Your task to perform on an android device: show emergency info Image 0: 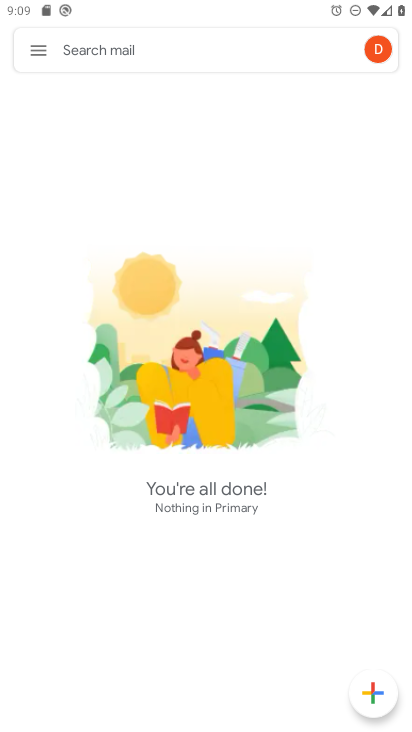
Step 0: press home button
Your task to perform on an android device: show emergency info Image 1: 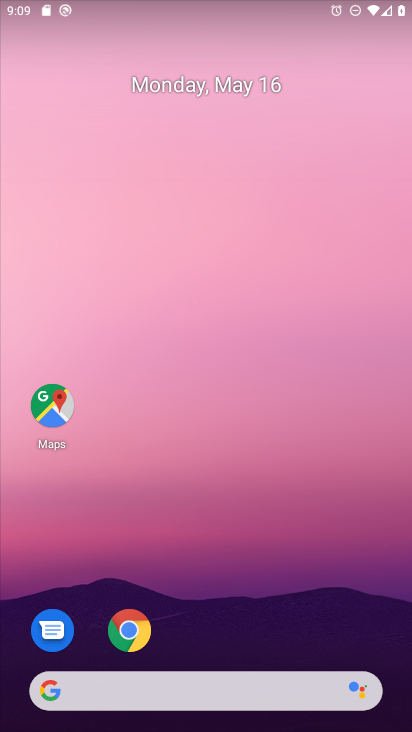
Step 1: drag from (259, 618) to (297, 133)
Your task to perform on an android device: show emergency info Image 2: 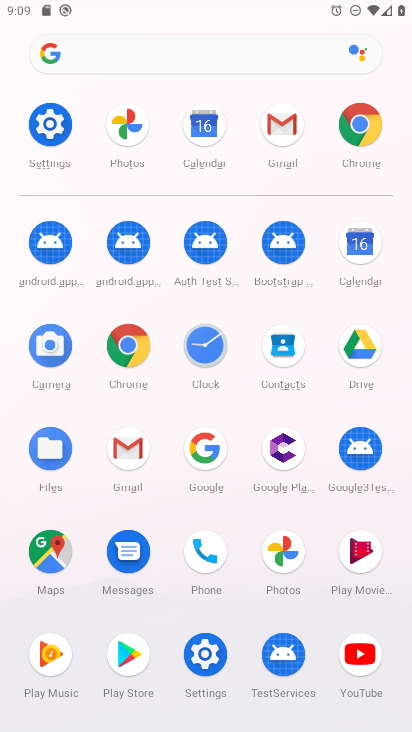
Step 2: click (61, 121)
Your task to perform on an android device: show emergency info Image 3: 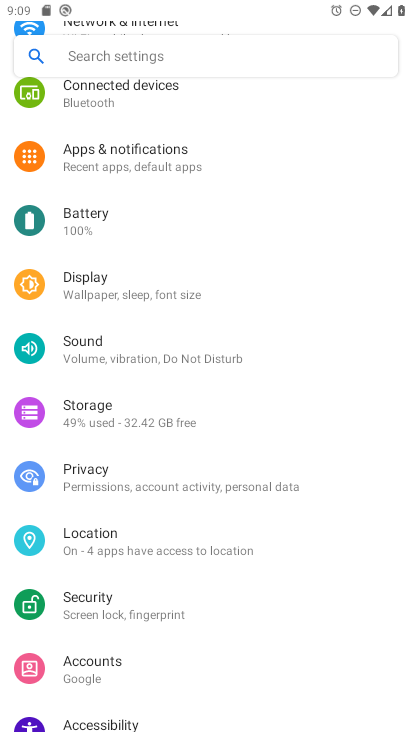
Step 3: drag from (273, 124) to (226, 603)
Your task to perform on an android device: show emergency info Image 4: 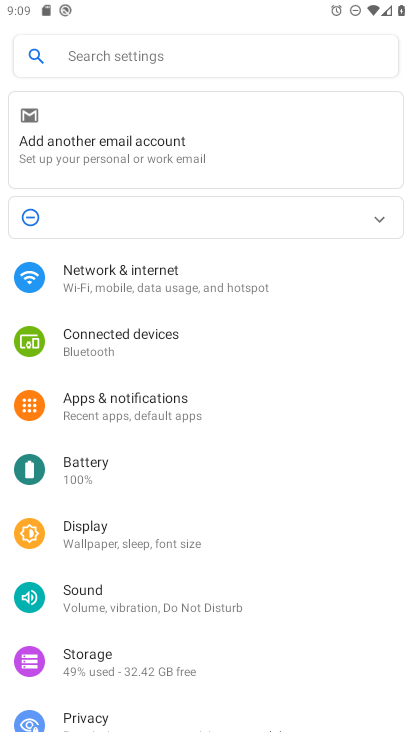
Step 4: drag from (285, 562) to (320, 57)
Your task to perform on an android device: show emergency info Image 5: 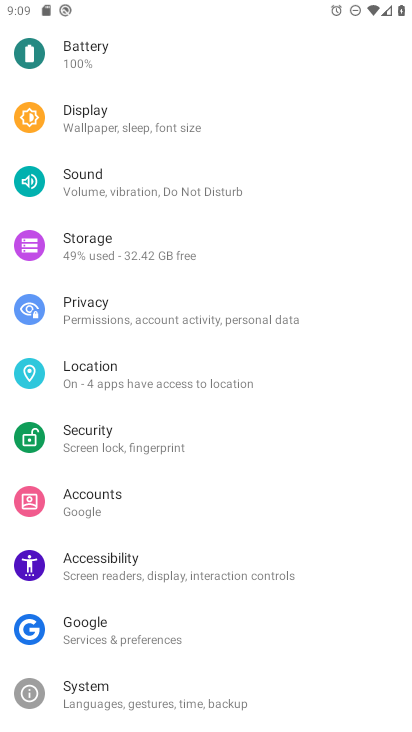
Step 5: drag from (220, 646) to (210, 273)
Your task to perform on an android device: show emergency info Image 6: 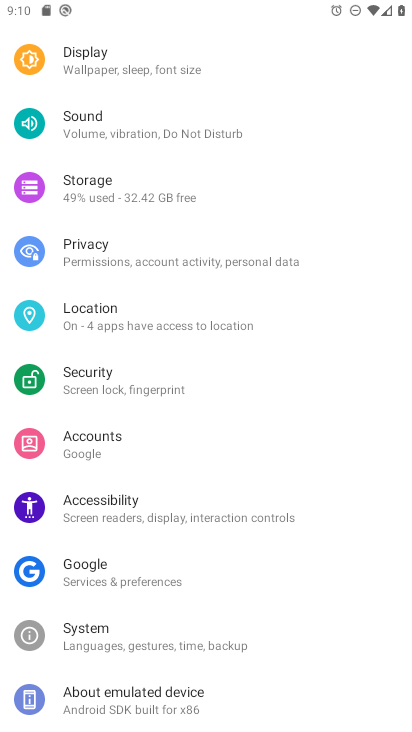
Step 6: click (200, 528)
Your task to perform on an android device: show emergency info Image 7: 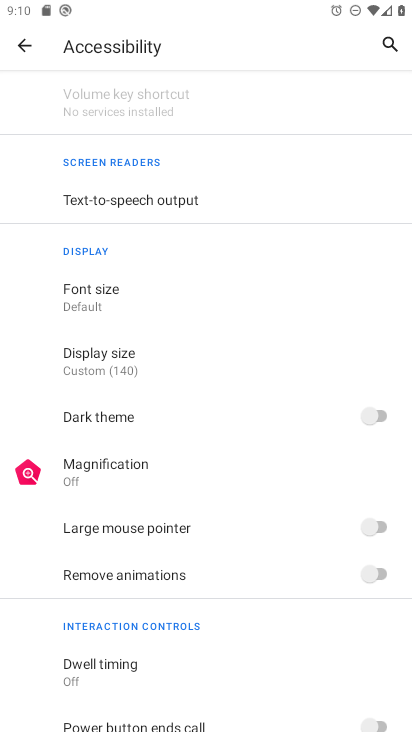
Step 7: drag from (135, 689) to (164, 225)
Your task to perform on an android device: show emergency info Image 8: 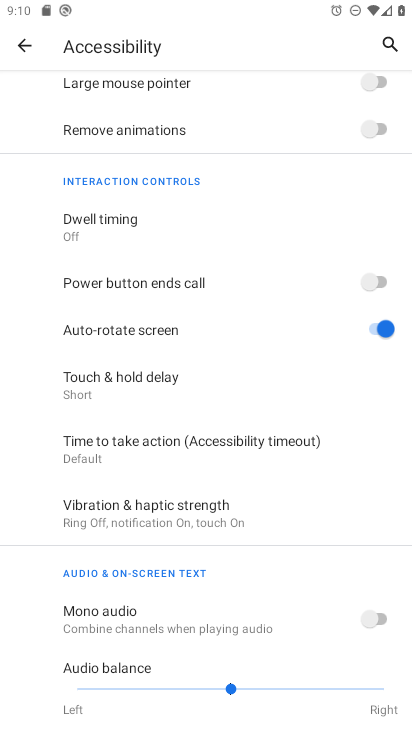
Step 8: drag from (170, 576) to (166, 232)
Your task to perform on an android device: show emergency info Image 9: 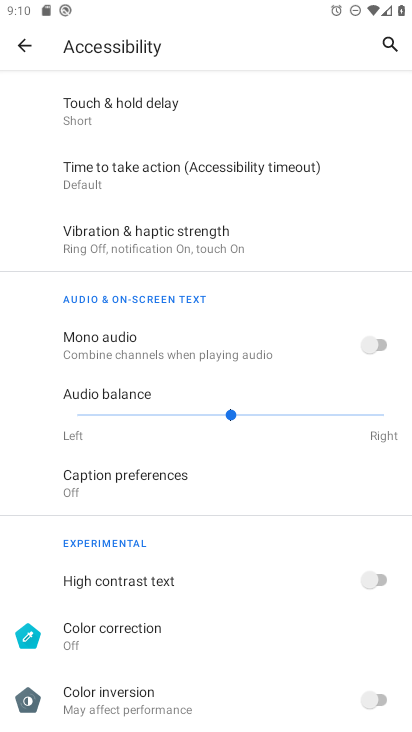
Step 9: drag from (168, 626) to (129, 303)
Your task to perform on an android device: show emergency info Image 10: 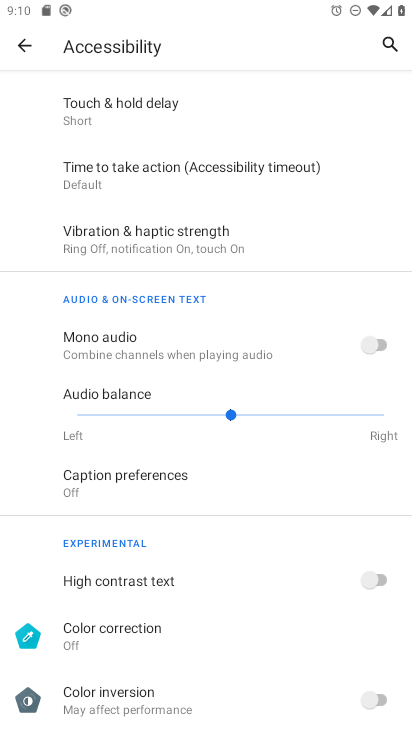
Step 10: press back button
Your task to perform on an android device: show emergency info Image 11: 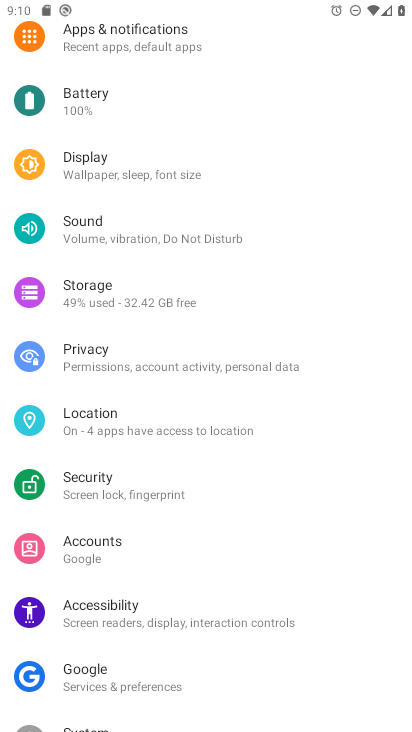
Step 11: drag from (290, 204) to (302, 635)
Your task to perform on an android device: show emergency info Image 12: 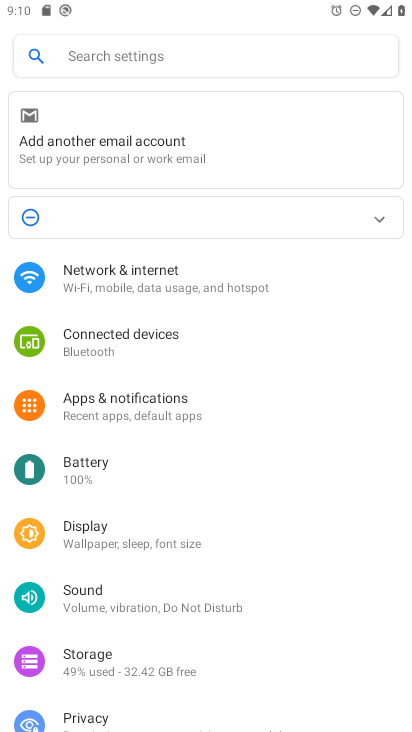
Step 12: click (118, 599)
Your task to perform on an android device: show emergency info Image 13: 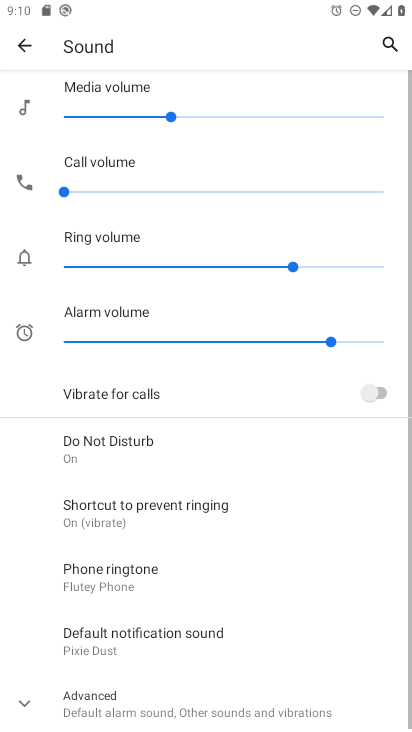
Step 13: drag from (118, 597) to (167, 228)
Your task to perform on an android device: show emergency info Image 14: 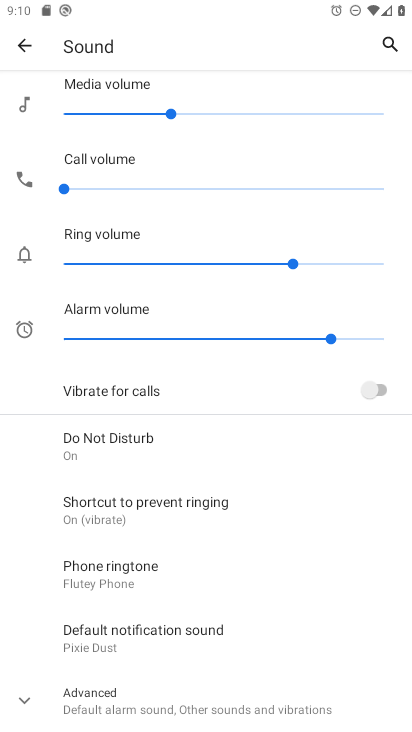
Step 14: click (154, 707)
Your task to perform on an android device: show emergency info Image 15: 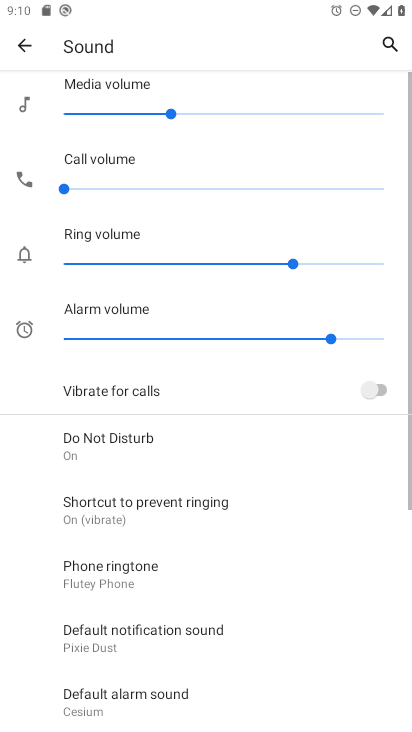
Step 15: task complete